Your task to perform on an android device: turn off priority inbox in the gmail app Image 0: 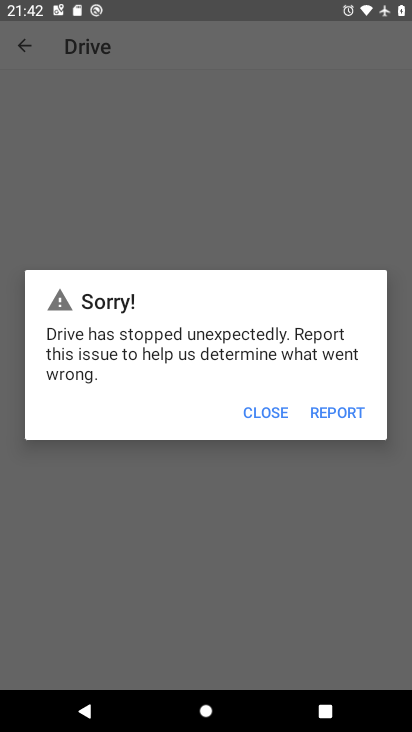
Step 0: press home button
Your task to perform on an android device: turn off priority inbox in the gmail app Image 1: 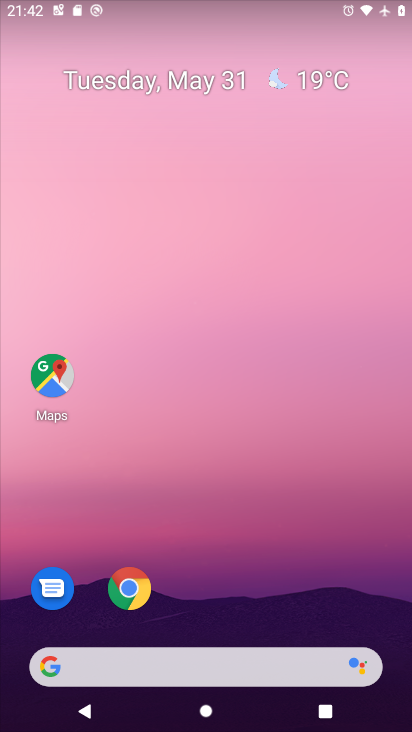
Step 1: drag from (155, 671) to (319, 70)
Your task to perform on an android device: turn off priority inbox in the gmail app Image 2: 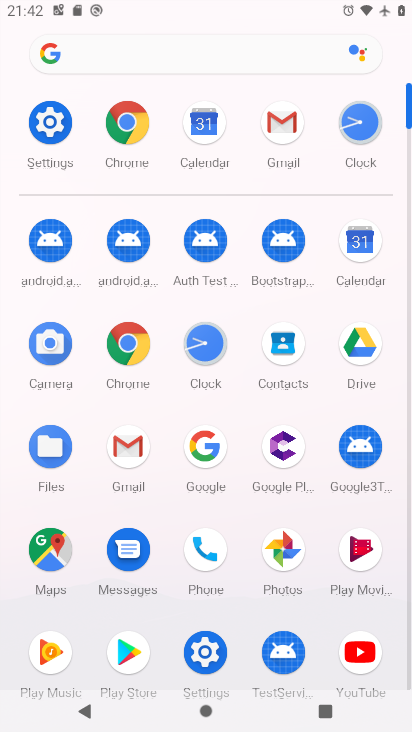
Step 2: click (283, 127)
Your task to perform on an android device: turn off priority inbox in the gmail app Image 3: 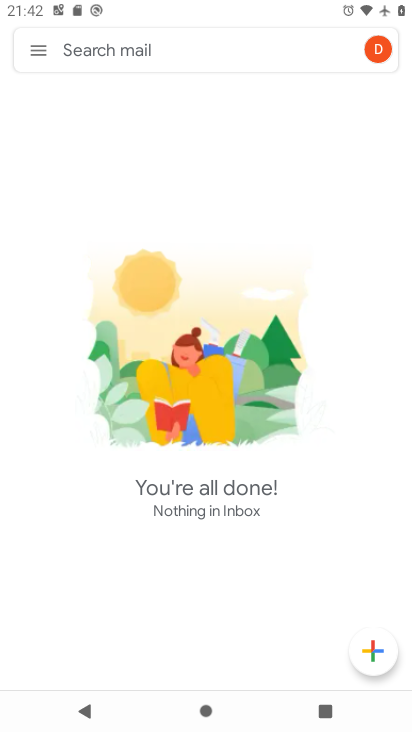
Step 3: click (39, 49)
Your task to perform on an android device: turn off priority inbox in the gmail app Image 4: 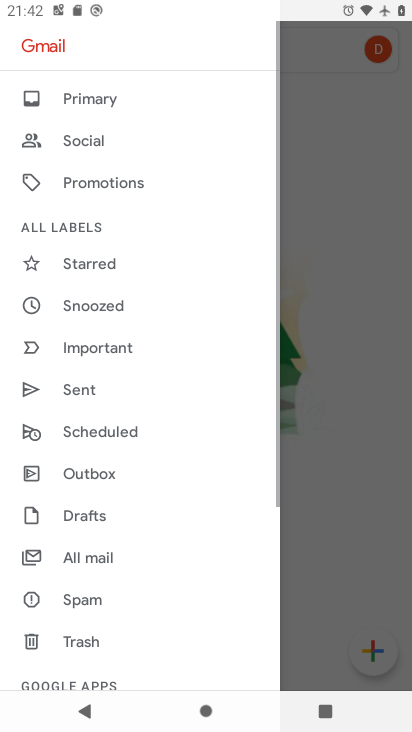
Step 4: drag from (129, 627) to (277, 63)
Your task to perform on an android device: turn off priority inbox in the gmail app Image 5: 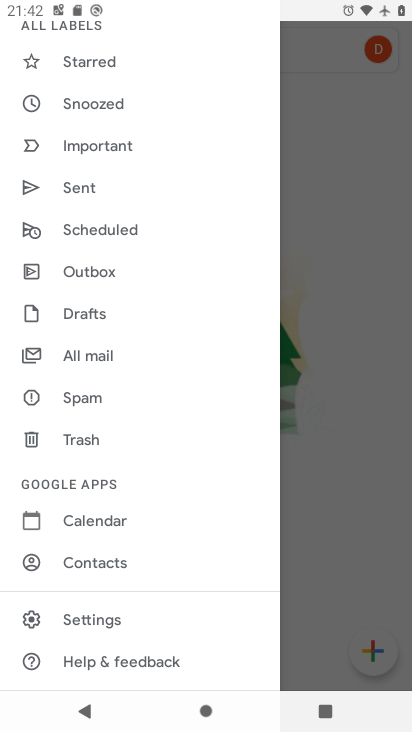
Step 5: click (93, 624)
Your task to perform on an android device: turn off priority inbox in the gmail app Image 6: 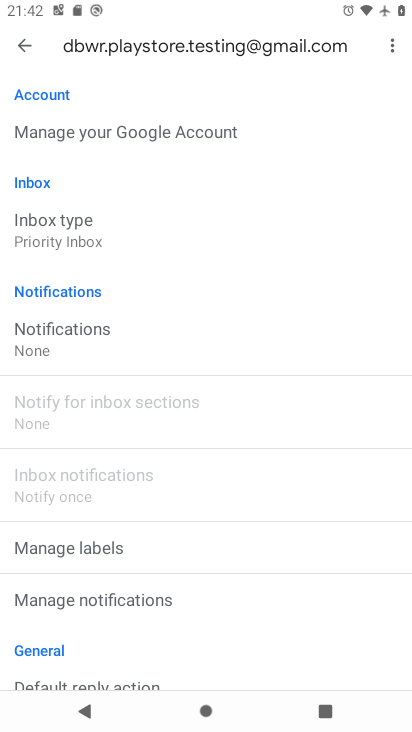
Step 6: click (78, 235)
Your task to perform on an android device: turn off priority inbox in the gmail app Image 7: 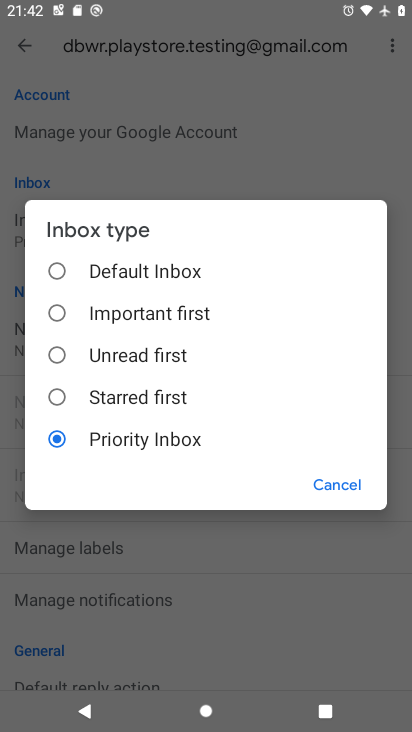
Step 7: click (44, 258)
Your task to perform on an android device: turn off priority inbox in the gmail app Image 8: 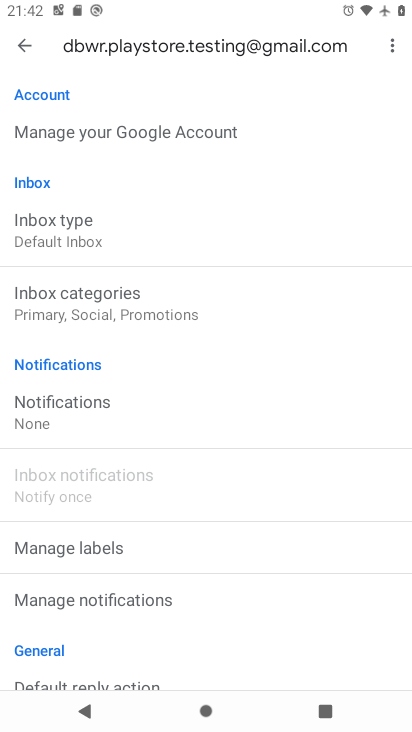
Step 8: task complete